Your task to perform on an android device: change notification settings in the gmail app Image 0: 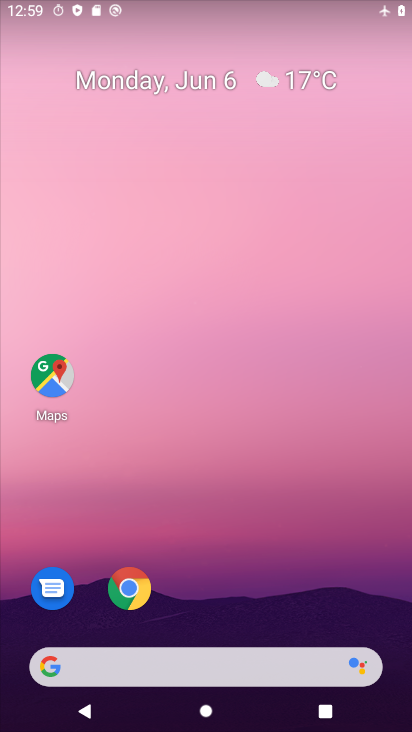
Step 0: drag from (302, 534) to (298, 218)
Your task to perform on an android device: change notification settings in the gmail app Image 1: 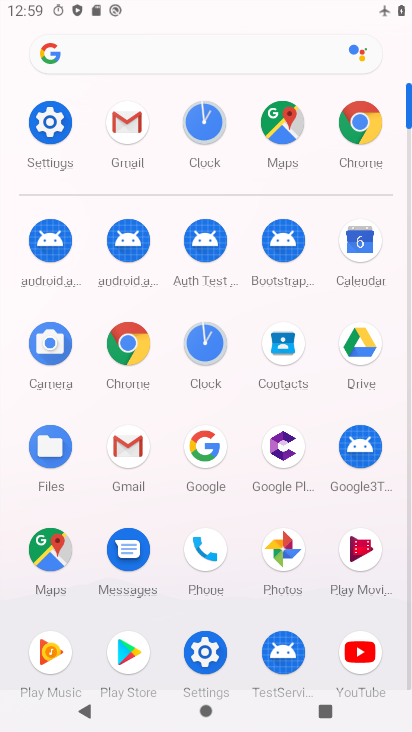
Step 1: click (119, 121)
Your task to perform on an android device: change notification settings in the gmail app Image 2: 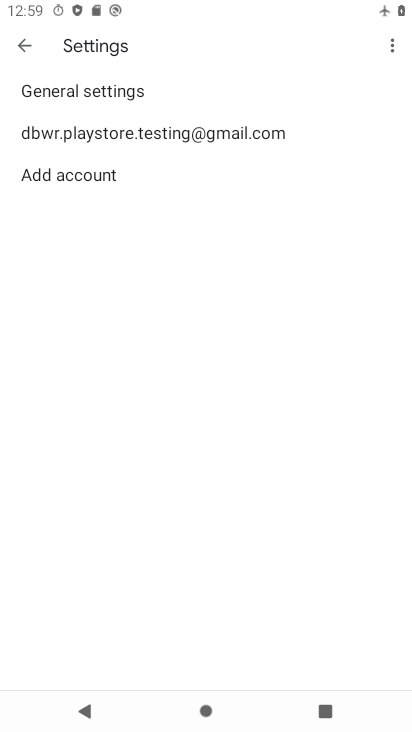
Step 2: click (117, 127)
Your task to perform on an android device: change notification settings in the gmail app Image 3: 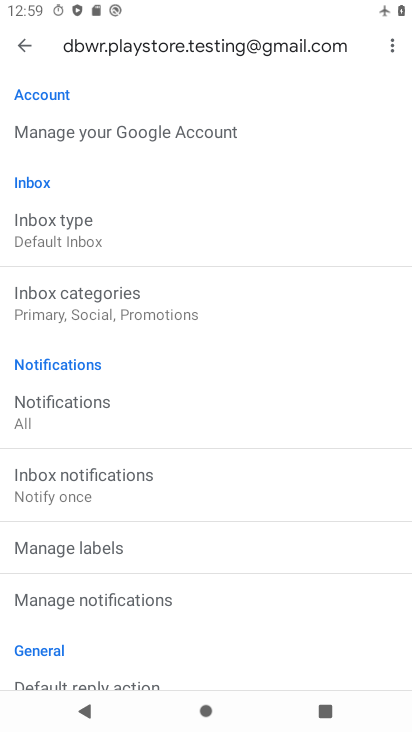
Step 3: click (150, 603)
Your task to perform on an android device: change notification settings in the gmail app Image 4: 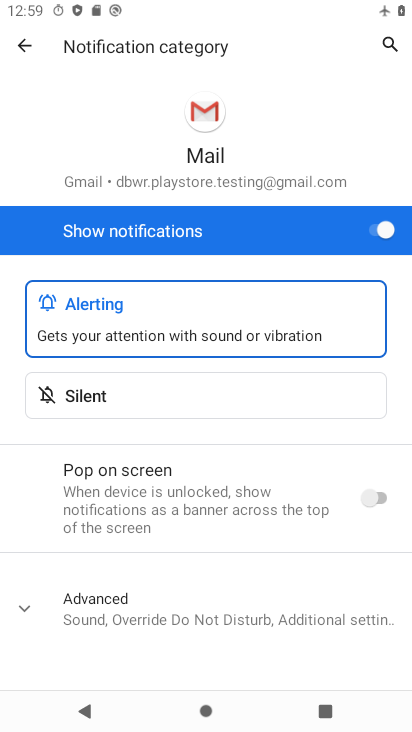
Step 4: click (359, 223)
Your task to perform on an android device: change notification settings in the gmail app Image 5: 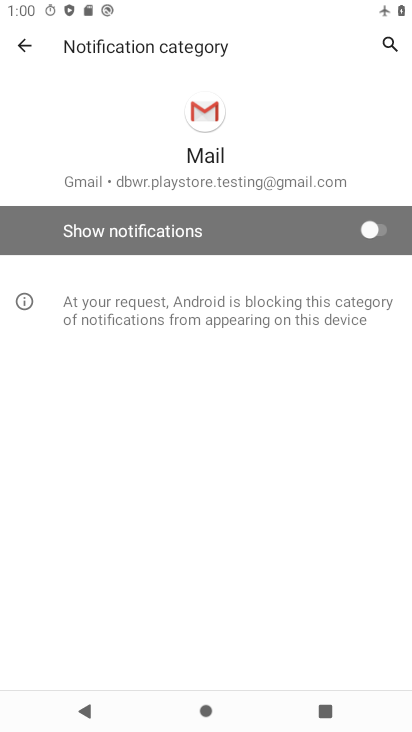
Step 5: task complete